Your task to perform on an android device: Do I have any events tomorrow? Image 0: 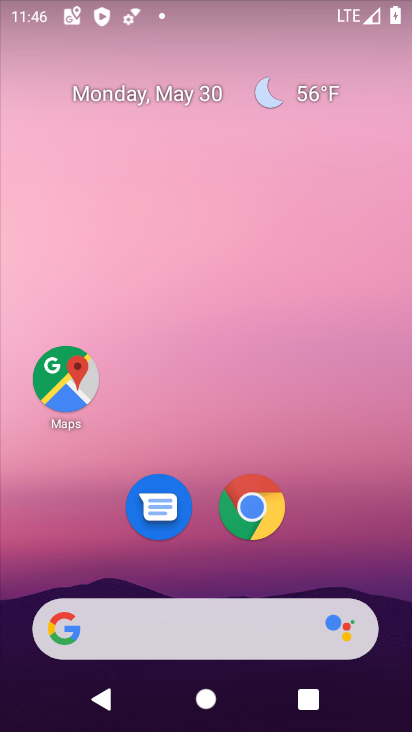
Step 0: drag from (313, 501) to (301, 123)
Your task to perform on an android device: Do I have any events tomorrow? Image 1: 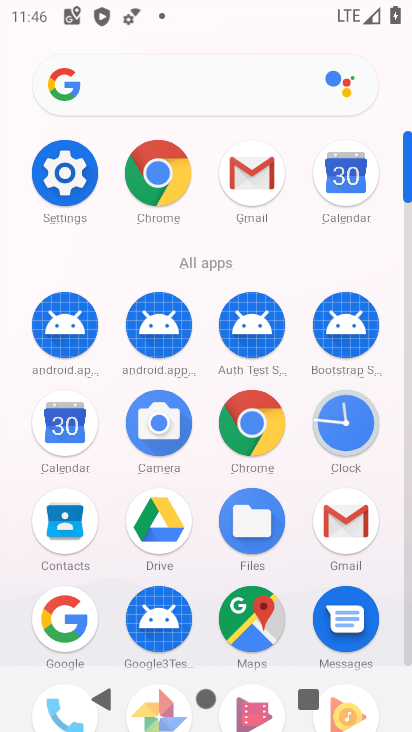
Step 1: click (56, 405)
Your task to perform on an android device: Do I have any events tomorrow? Image 2: 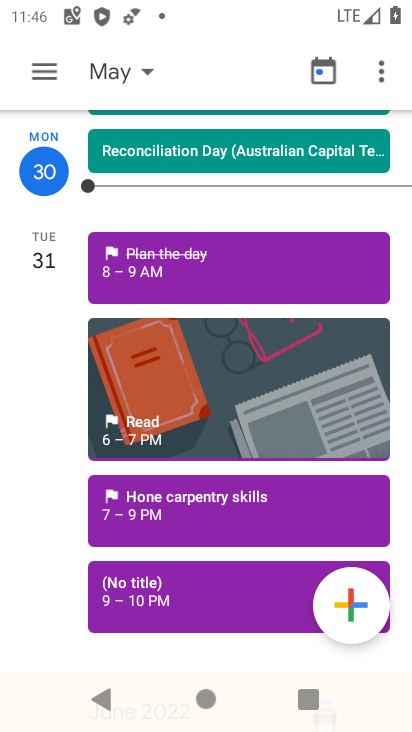
Step 2: task complete